Your task to perform on an android device: Check the weather Image 0: 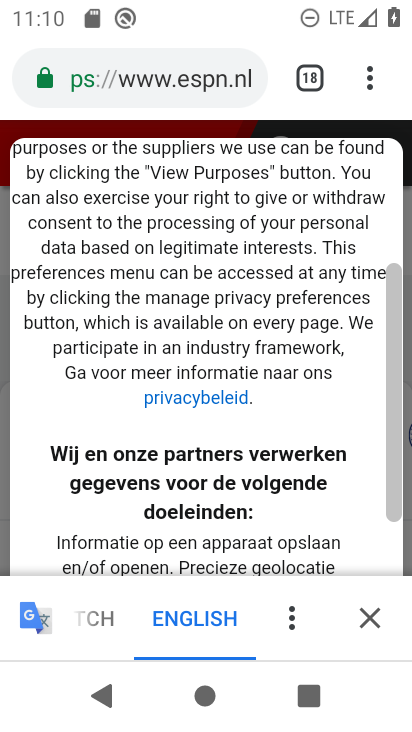
Step 0: press home button
Your task to perform on an android device: Check the weather Image 1: 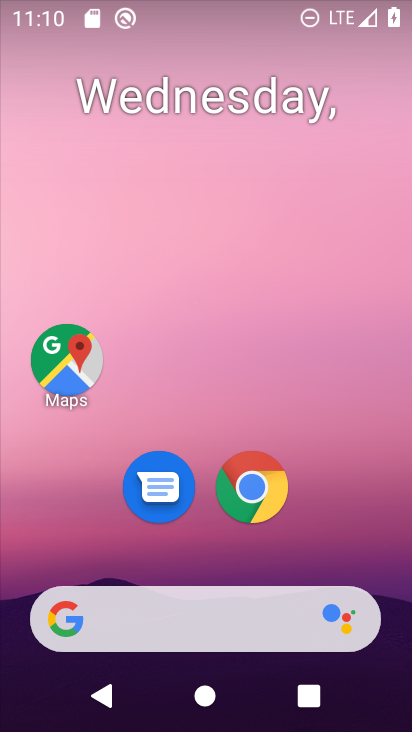
Step 1: click (191, 637)
Your task to perform on an android device: Check the weather Image 2: 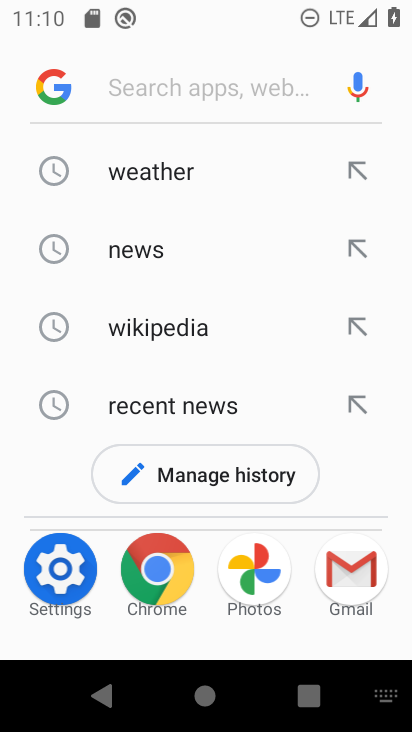
Step 2: click (135, 169)
Your task to perform on an android device: Check the weather Image 3: 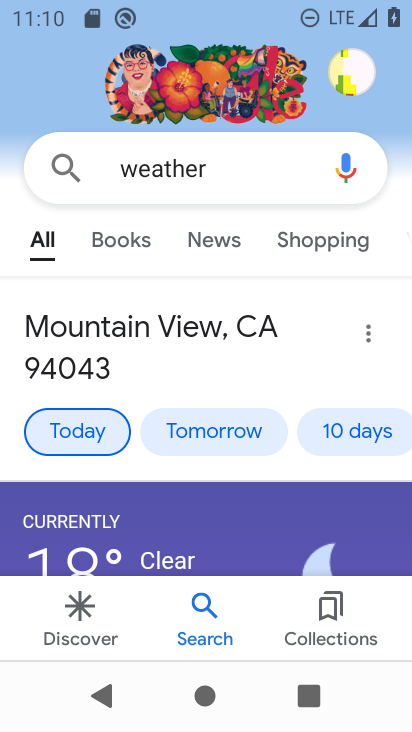
Step 3: task complete